Your task to perform on an android device: open a new tab in the chrome app Image 0: 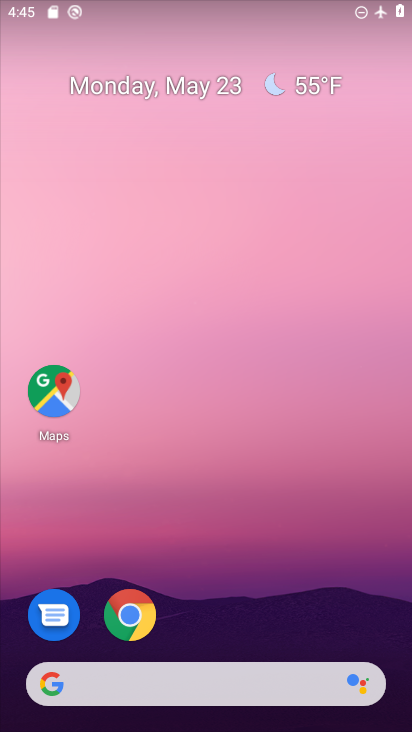
Step 0: drag from (376, 631) to (377, 237)
Your task to perform on an android device: open a new tab in the chrome app Image 1: 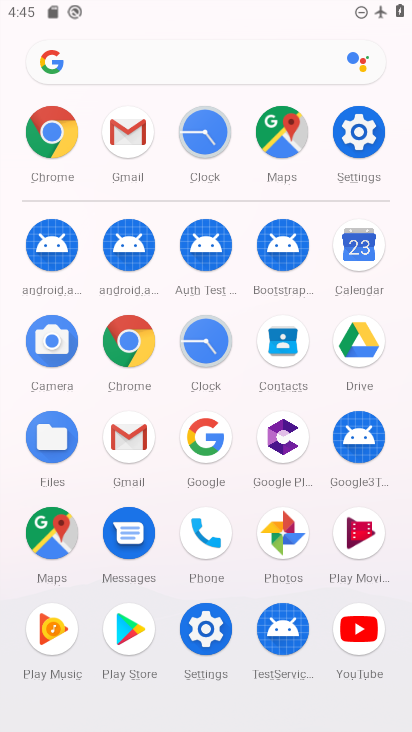
Step 1: click (128, 354)
Your task to perform on an android device: open a new tab in the chrome app Image 2: 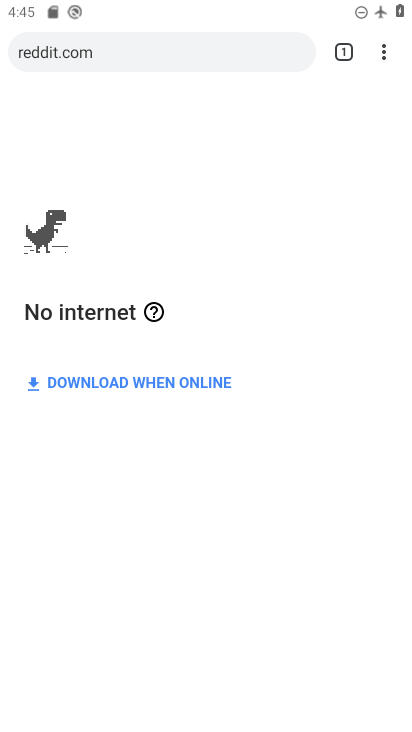
Step 2: click (383, 59)
Your task to perform on an android device: open a new tab in the chrome app Image 3: 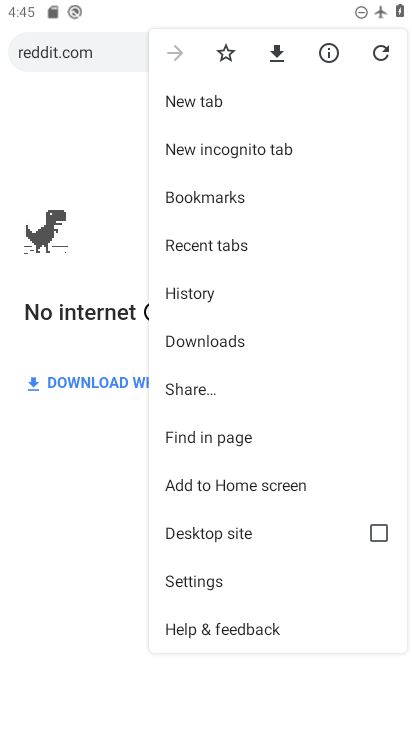
Step 3: click (221, 118)
Your task to perform on an android device: open a new tab in the chrome app Image 4: 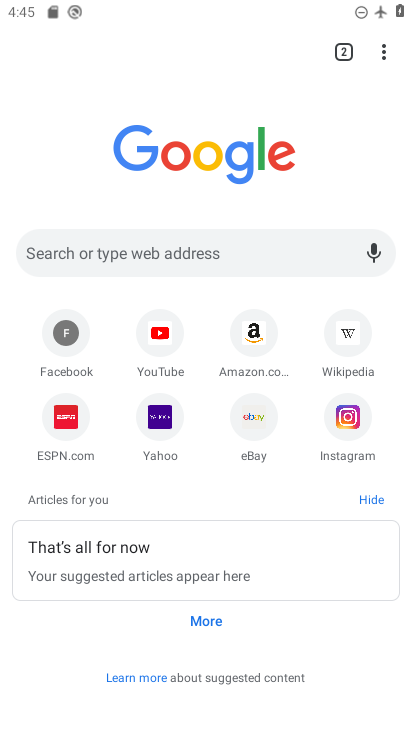
Step 4: task complete